Your task to perform on an android device: see sites visited before in the chrome app Image 0: 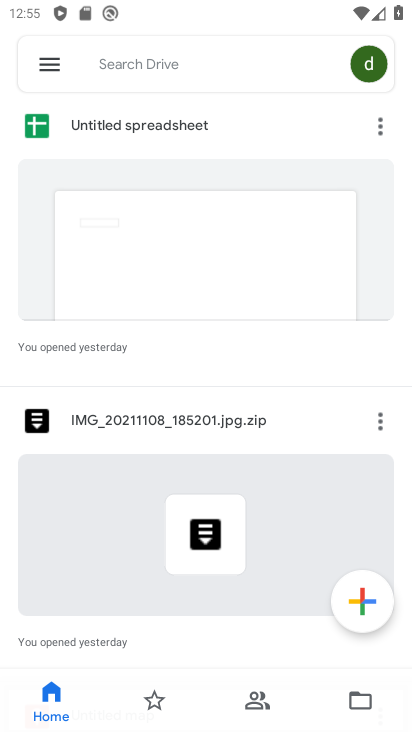
Step 0: press home button
Your task to perform on an android device: see sites visited before in the chrome app Image 1: 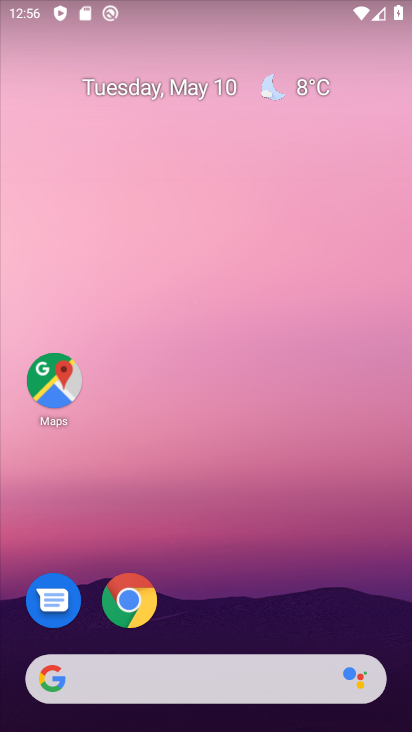
Step 1: drag from (150, 671) to (250, 154)
Your task to perform on an android device: see sites visited before in the chrome app Image 2: 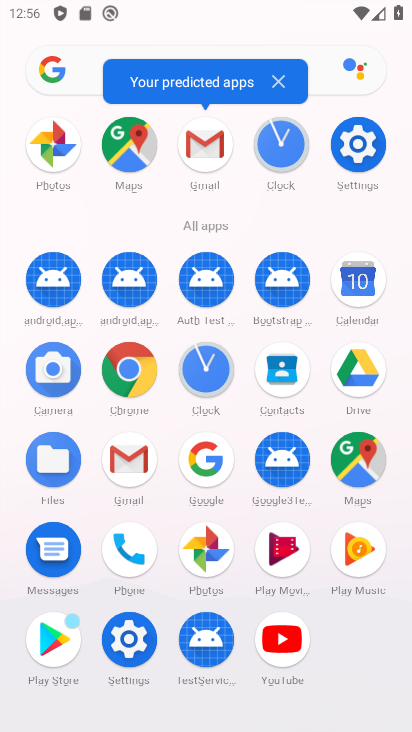
Step 2: click (133, 381)
Your task to perform on an android device: see sites visited before in the chrome app Image 3: 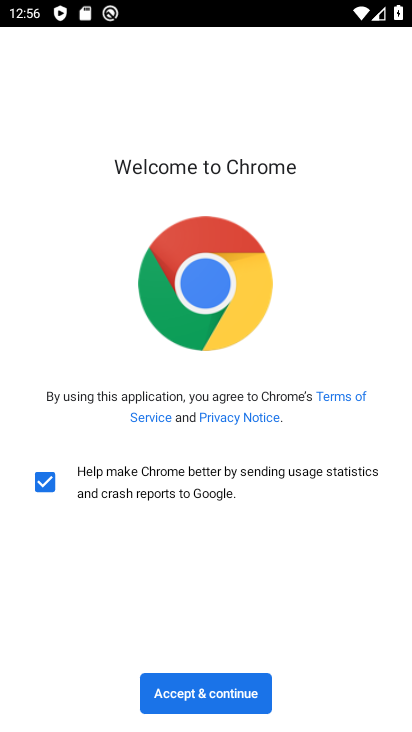
Step 3: click (202, 698)
Your task to perform on an android device: see sites visited before in the chrome app Image 4: 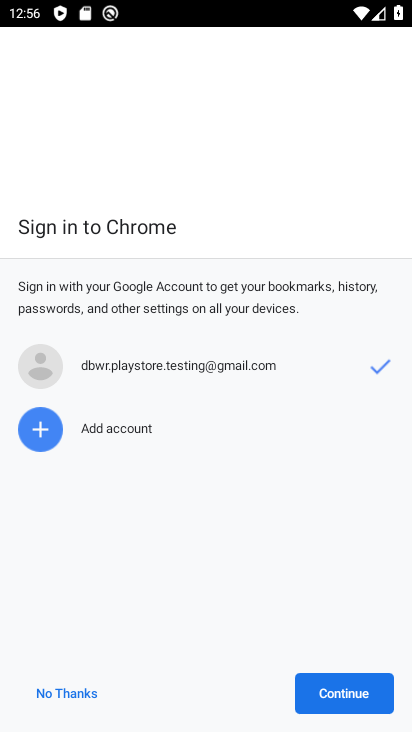
Step 4: click (316, 691)
Your task to perform on an android device: see sites visited before in the chrome app Image 5: 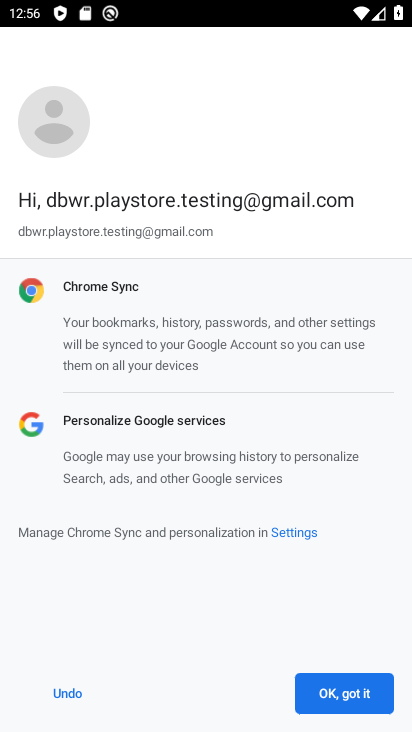
Step 5: click (316, 691)
Your task to perform on an android device: see sites visited before in the chrome app Image 6: 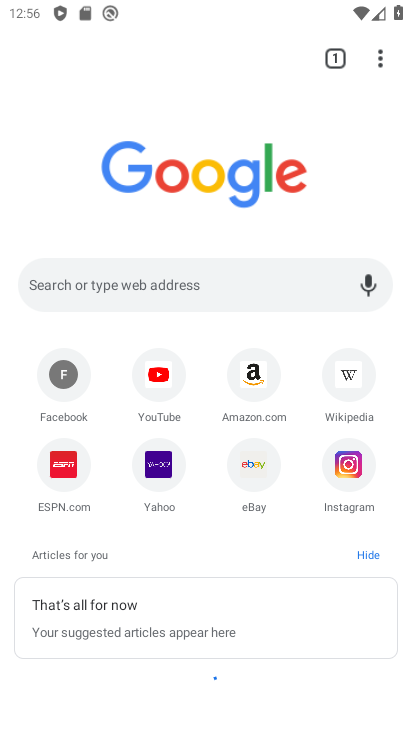
Step 6: task complete